Your task to perform on an android device: turn vacation reply on in the gmail app Image 0: 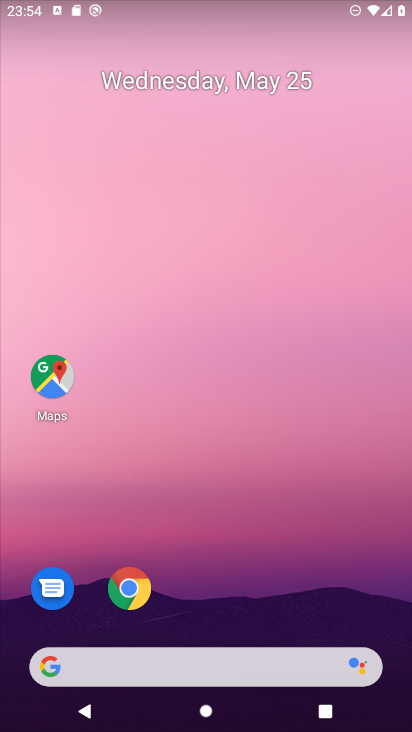
Step 0: press home button
Your task to perform on an android device: turn vacation reply on in the gmail app Image 1: 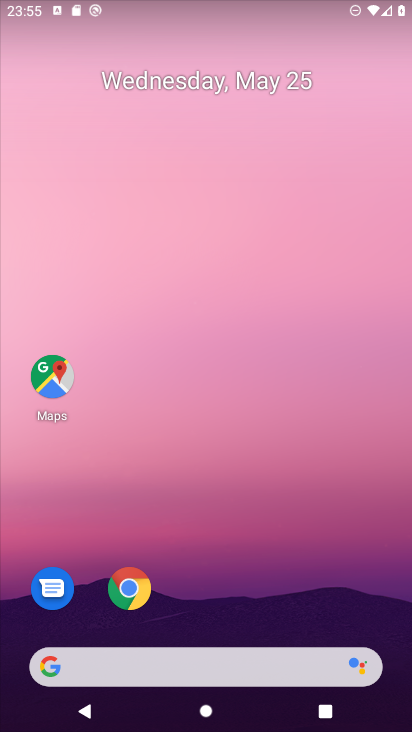
Step 1: drag from (54, 479) to (288, 115)
Your task to perform on an android device: turn vacation reply on in the gmail app Image 2: 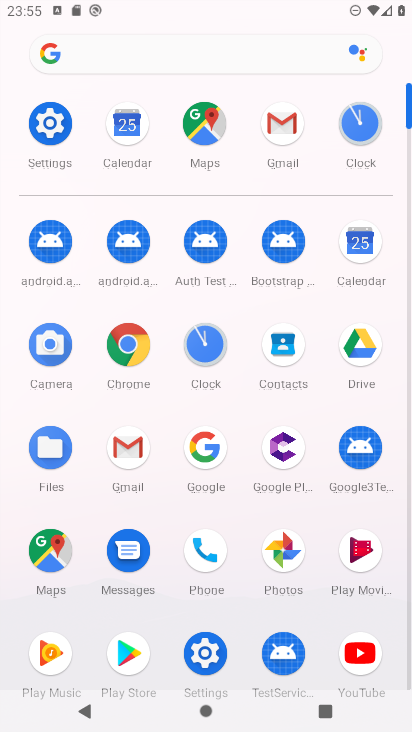
Step 2: click (286, 131)
Your task to perform on an android device: turn vacation reply on in the gmail app Image 3: 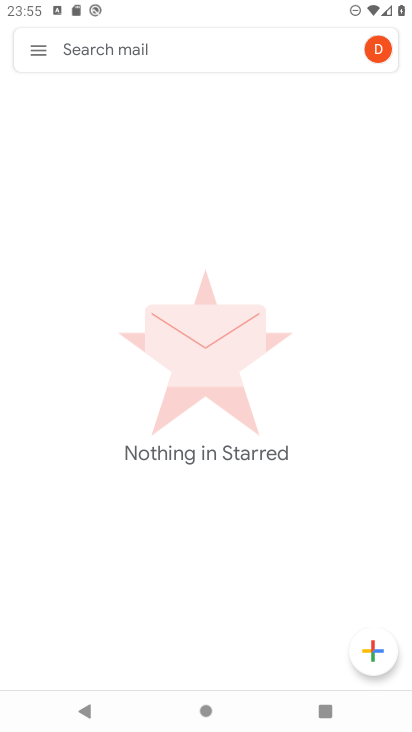
Step 3: click (35, 50)
Your task to perform on an android device: turn vacation reply on in the gmail app Image 4: 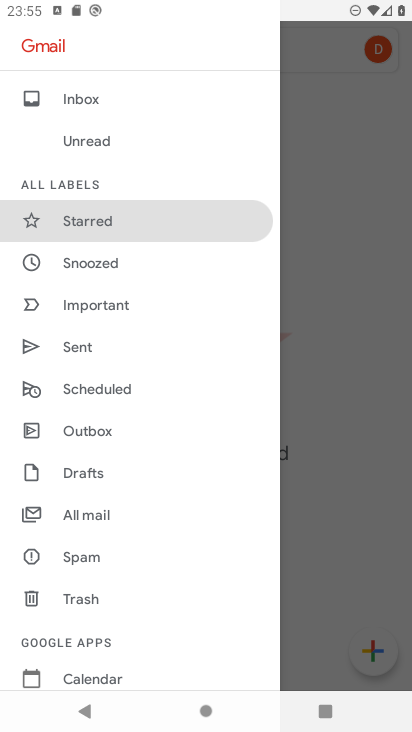
Step 4: drag from (53, 662) to (217, 90)
Your task to perform on an android device: turn vacation reply on in the gmail app Image 5: 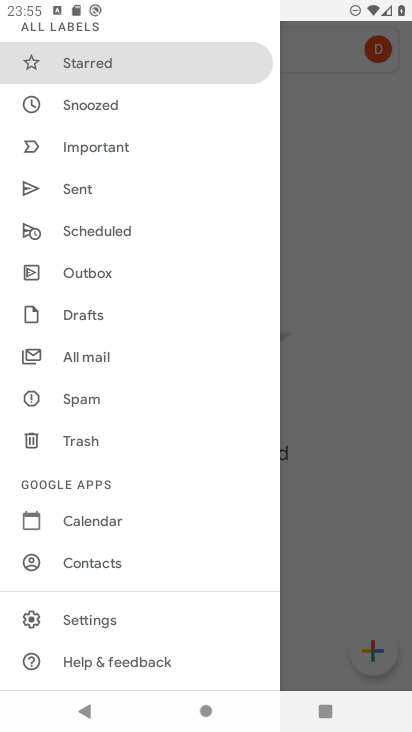
Step 5: click (87, 606)
Your task to perform on an android device: turn vacation reply on in the gmail app Image 6: 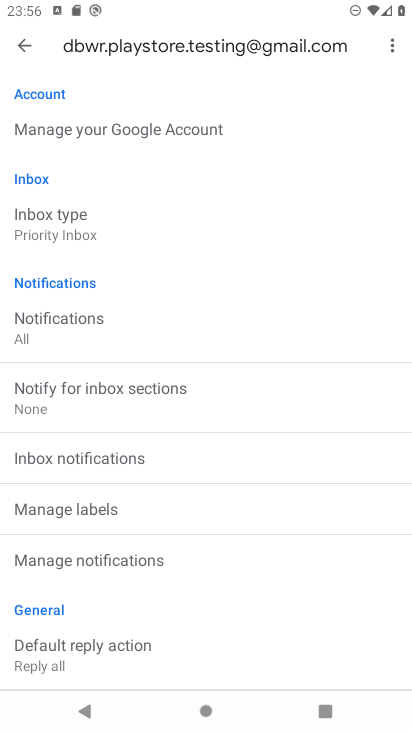
Step 6: drag from (18, 650) to (207, 170)
Your task to perform on an android device: turn vacation reply on in the gmail app Image 7: 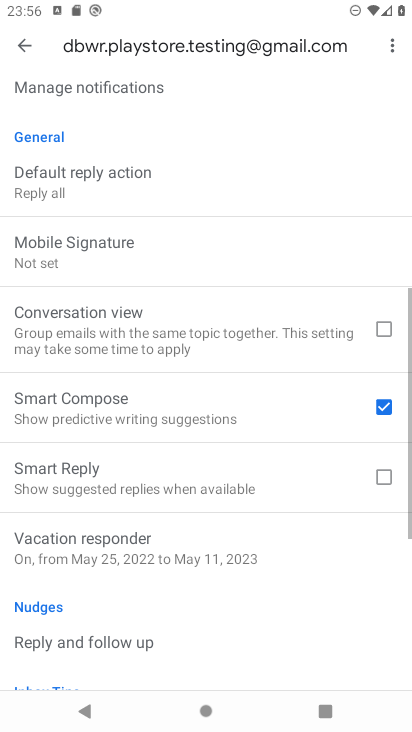
Step 7: drag from (25, 619) to (264, 252)
Your task to perform on an android device: turn vacation reply on in the gmail app Image 8: 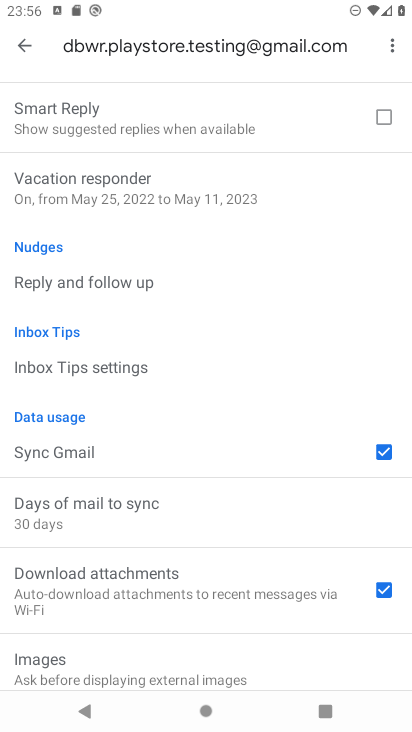
Step 8: click (157, 182)
Your task to perform on an android device: turn vacation reply on in the gmail app Image 9: 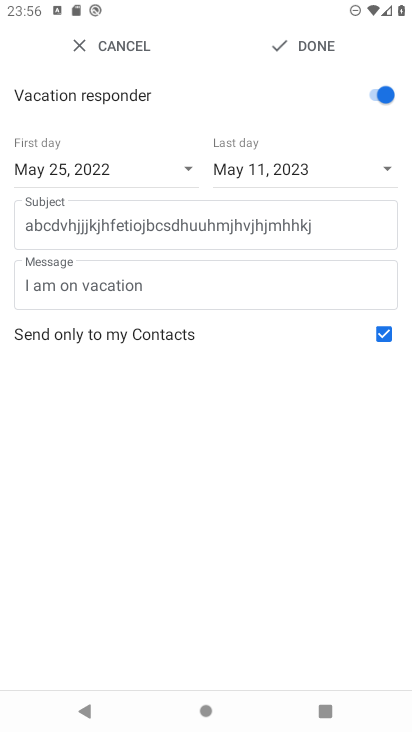
Step 9: task complete